Your task to perform on an android device: Search for seafood restaurants on Google Maps Image 0: 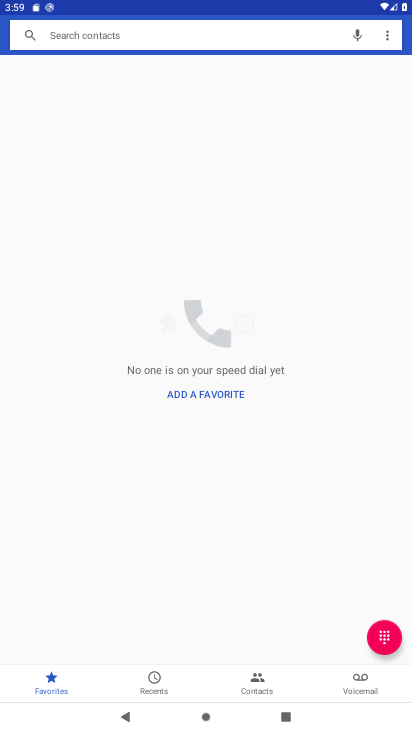
Step 0: press home button
Your task to perform on an android device: Search for seafood restaurants on Google Maps Image 1: 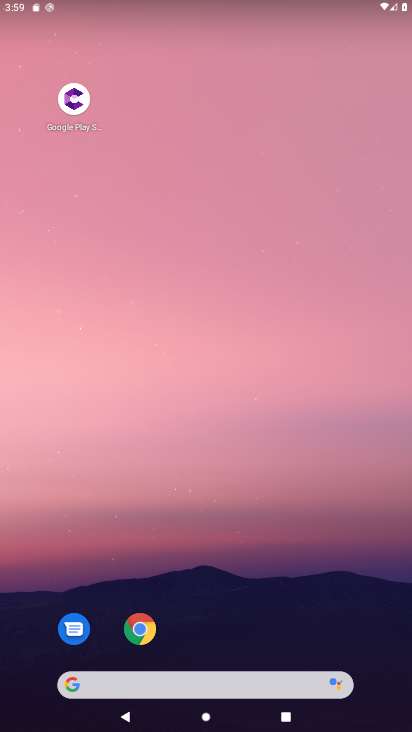
Step 1: drag from (197, 628) to (227, 185)
Your task to perform on an android device: Search for seafood restaurants on Google Maps Image 2: 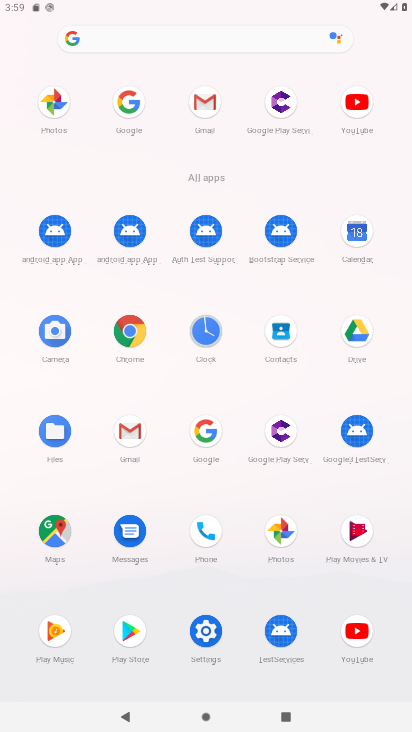
Step 2: click (64, 531)
Your task to perform on an android device: Search for seafood restaurants on Google Maps Image 3: 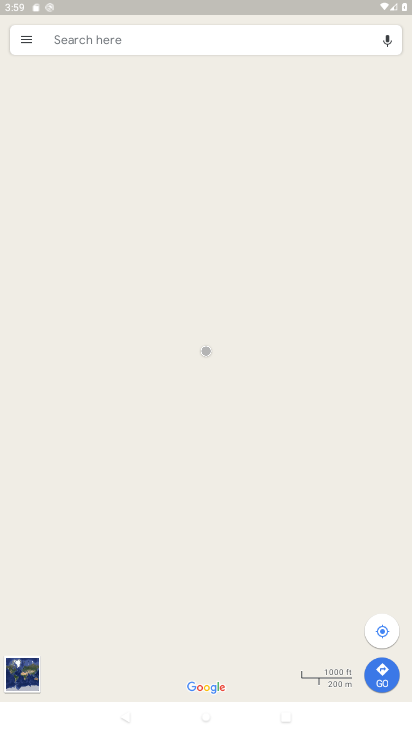
Step 3: click (156, 49)
Your task to perform on an android device: Search for seafood restaurants on Google Maps Image 4: 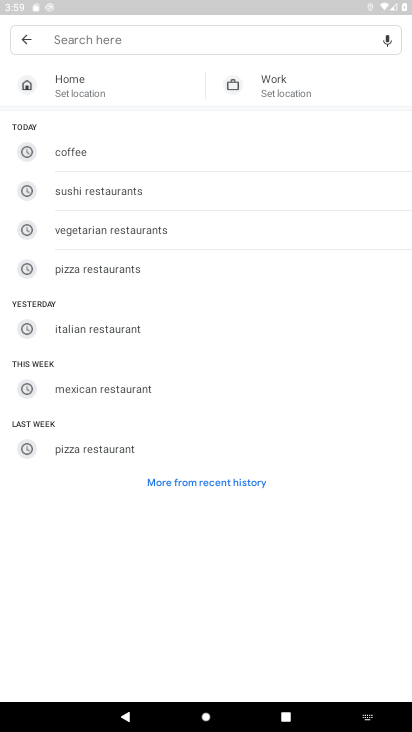
Step 4: type "seafood restaurants"
Your task to perform on an android device: Search for seafood restaurants on Google Maps Image 5: 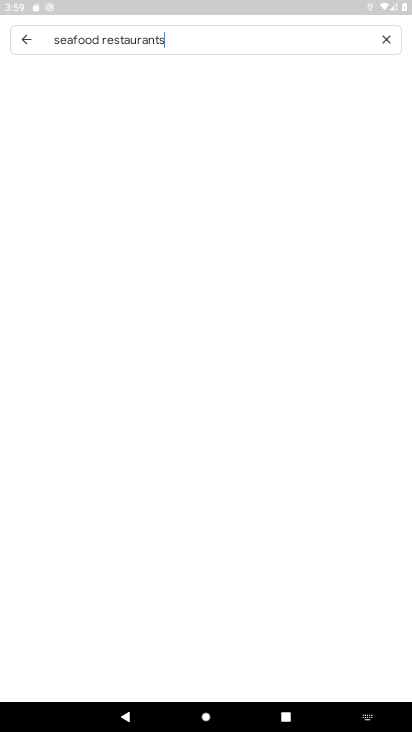
Step 5: type ""
Your task to perform on an android device: Search for seafood restaurants on Google Maps Image 6: 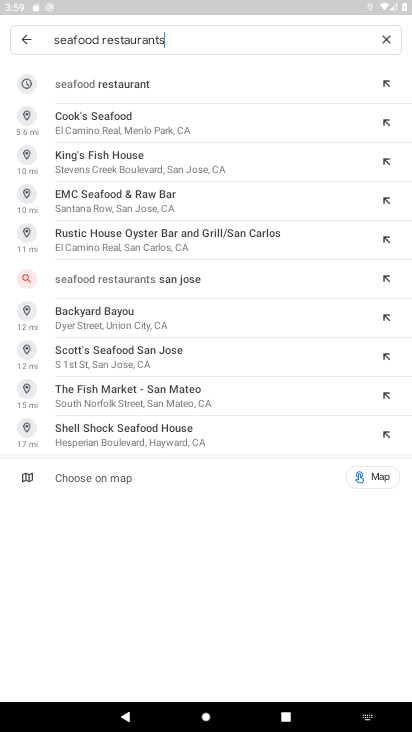
Step 6: click (139, 84)
Your task to perform on an android device: Search for seafood restaurants on Google Maps Image 7: 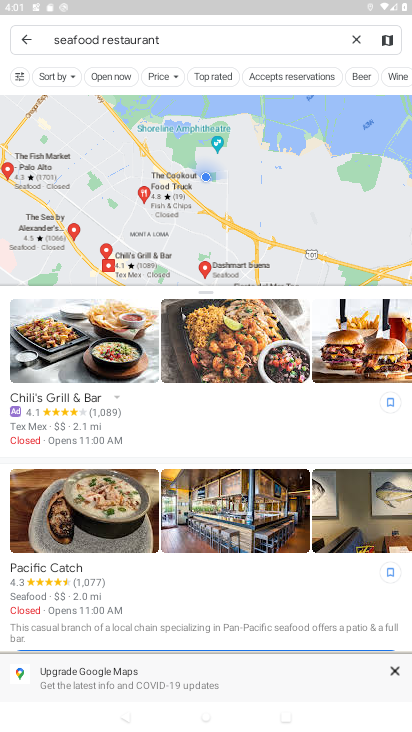
Step 7: task complete